Your task to perform on an android device: toggle improve location accuracy Image 0: 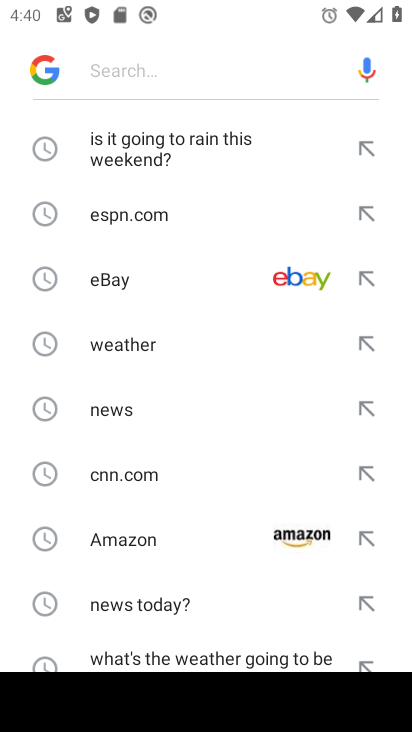
Step 0: press home button
Your task to perform on an android device: toggle improve location accuracy Image 1: 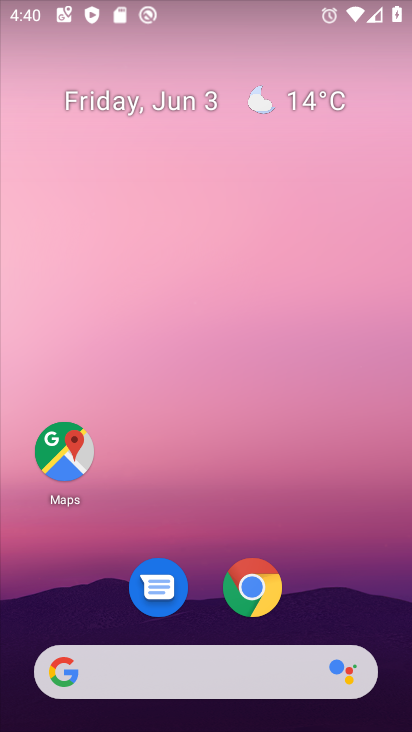
Step 1: drag from (200, 633) to (190, 211)
Your task to perform on an android device: toggle improve location accuracy Image 2: 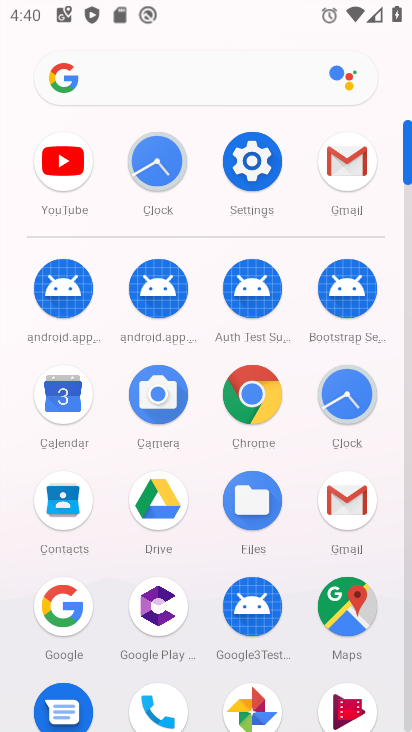
Step 2: click (258, 178)
Your task to perform on an android device: toggle improve location accuracy Image 3: 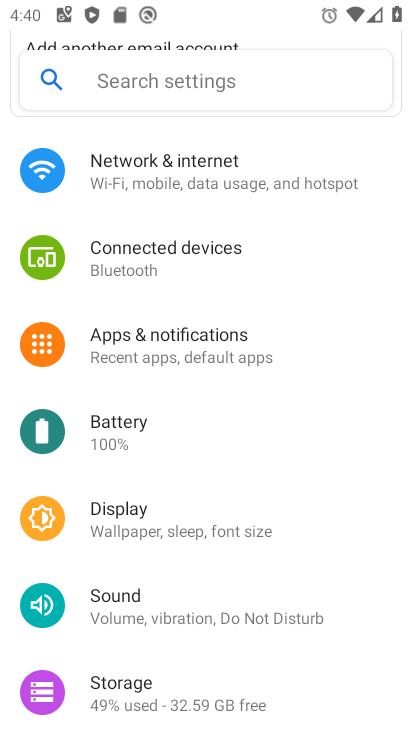
Step 3: drag from (166, 696) to (157, 257)
Your task to perform on an android device: toggle improve location accuracy Image 4: 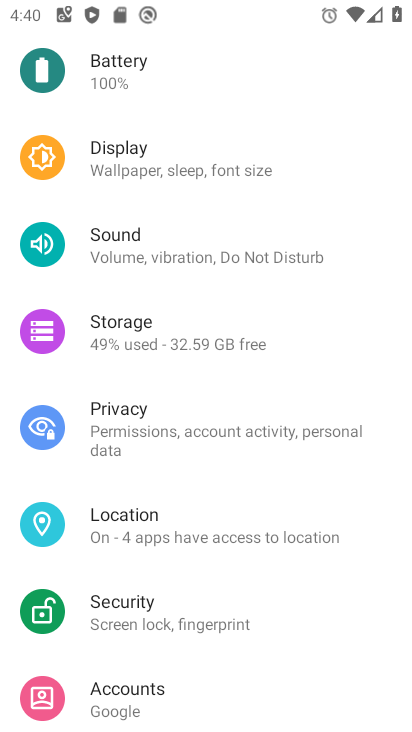
Step 4: click (138, 521)
Your task to perform on an android device: toggle improve location accuracy Image 5: 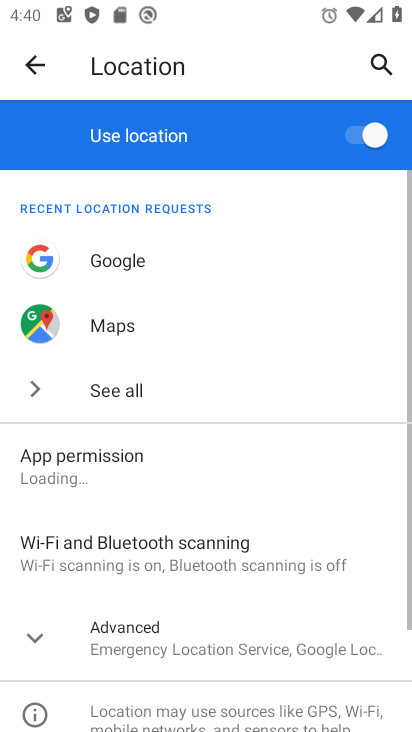
Step 5: drag from (129, 655) to (129, 416)
Your task to perform on an android device: toggle improve location accuracy Image 6: 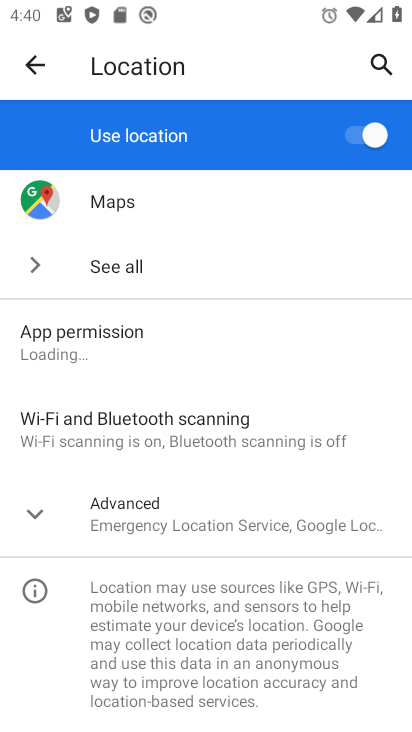
Step 6: click (139, 533)
Your task to perform on an android device: toggle improve location accuracy Image 7: 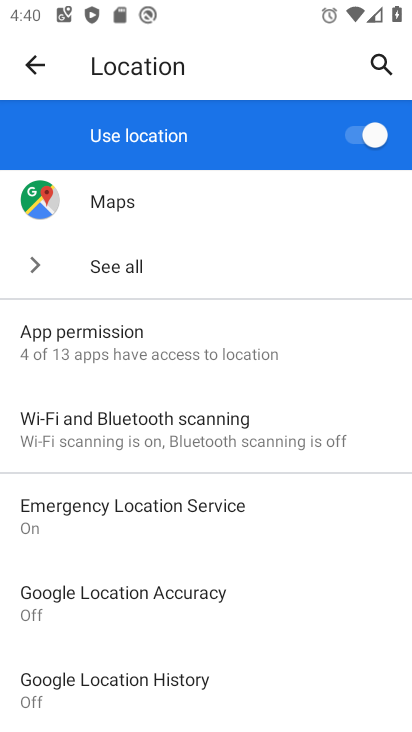
Step 7: click (138, 584)
Your task to perform on an android device: toggle improve location accuracy Image 8: 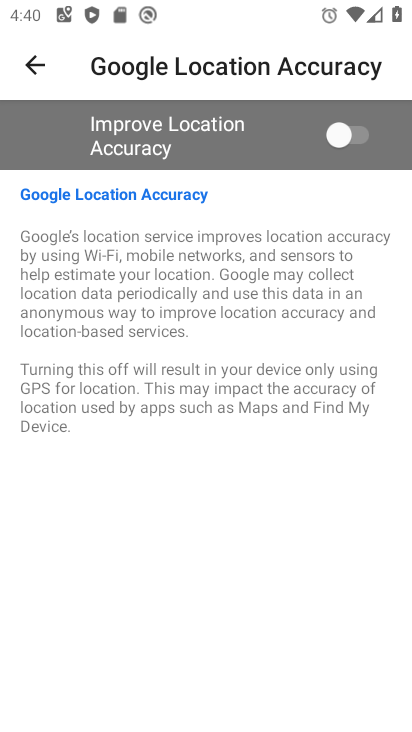
Step 8: click (356, 123)
Your task to perform on an android device: toggle improve location accuracy Image 9: 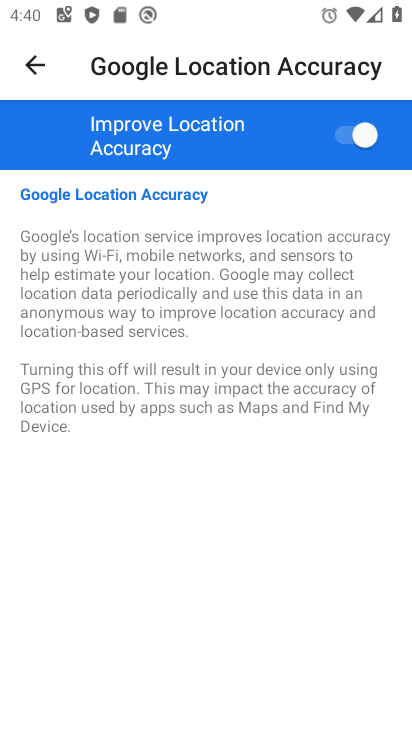
Step 9: task complete